Your task to perform on an android device: turn off notifications settings in the gmail app Image 0: 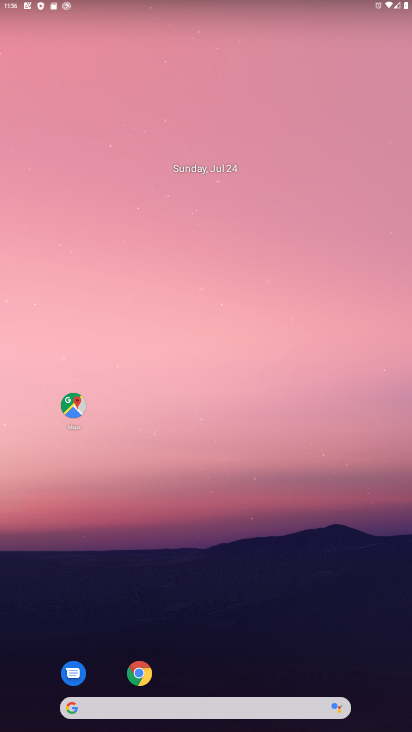
Step 0: drag from (326, 649) to (309, 160)
Your task to perform on an android device: turn off notifications settings in the gmail app Image 1: 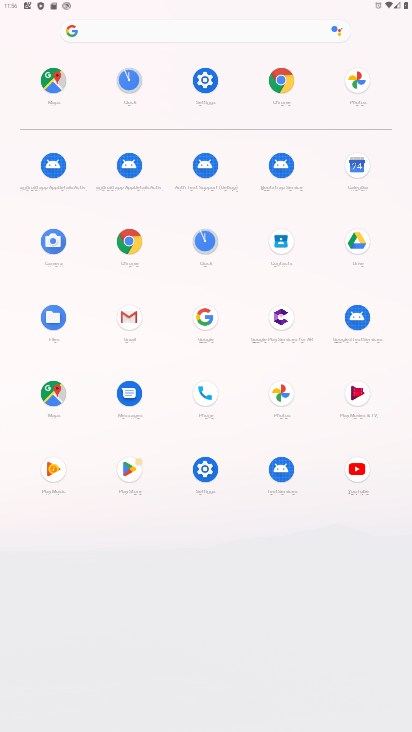
Step 1: click (206, 314)
Your task to perform on an android device: turn off notifications settings in the gmail app Image 2: 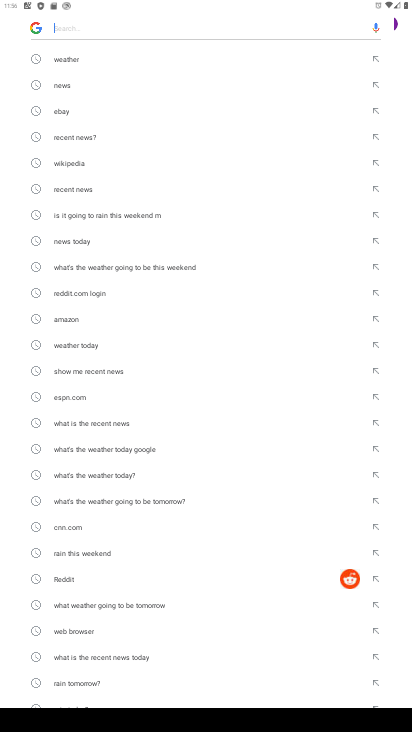
Step 2: press home button
Your task to perform on an android device: turn off notifications settings in the gmail app Image 3: 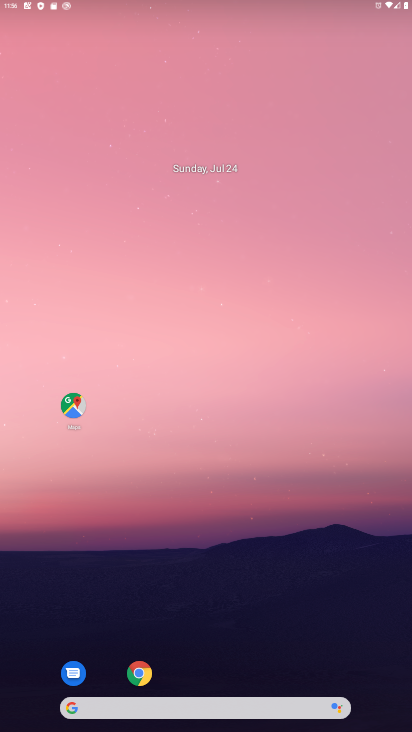
Step 3: drag from (301, 648) to (277, 97)
Your task to perform on an android device: turn off notifications settings in the gmail app Image 4: 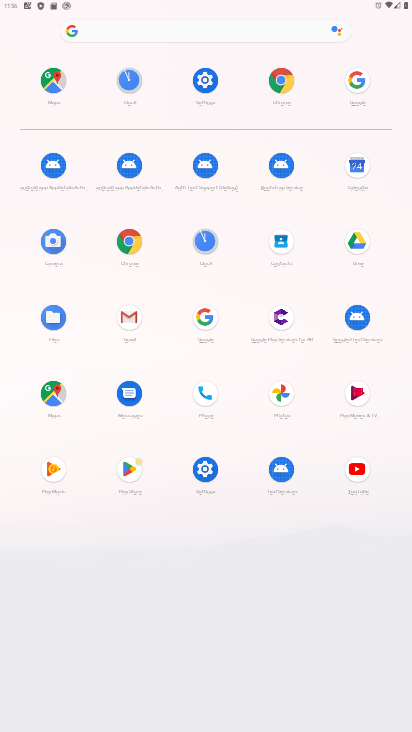
Step 4: click (125, 314)
Your task to perform on an android device: turn off notifications settings in the gmail app Image 5: 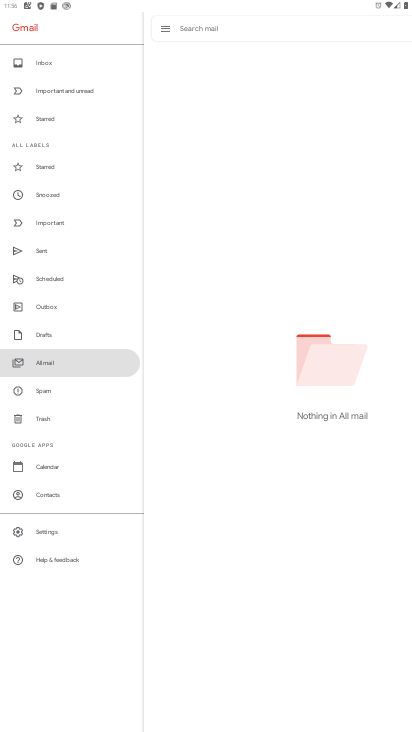
Step 5: click (59, 525)
Your task to perform on an android device: turn off notifications settings in the gmail app Image 6: 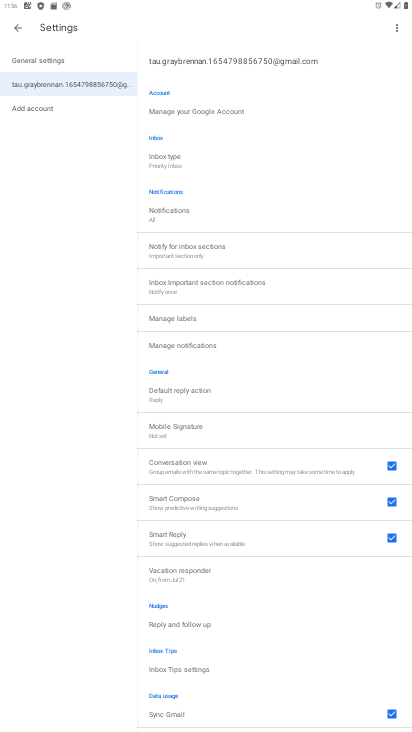
Step 6: click (183, 346)
Your task to perform on an android device: turn off notifications settings in the gmail app Image 7: 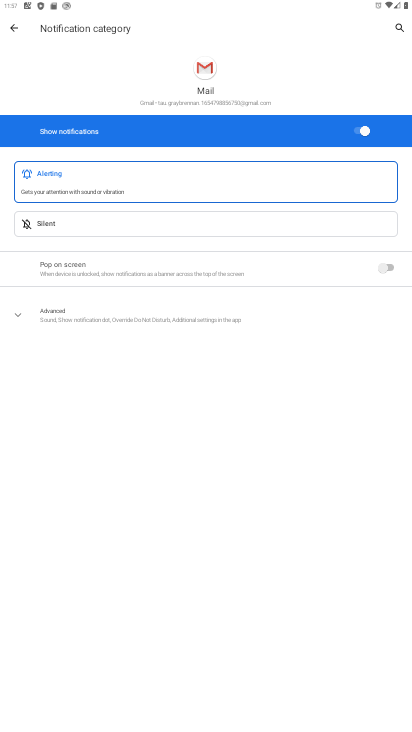
Step 7: click (361, 132)
Your task to perform on an android device: turn off notifications settings in the gmail app Image 8: 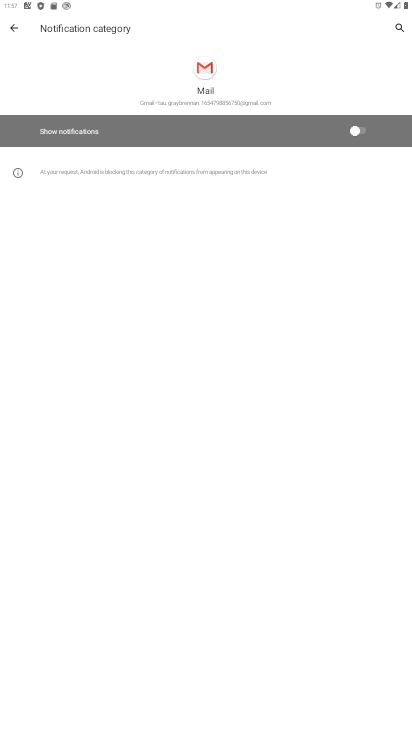
Step 8: task complete